Your task to perform on an android device: change text size in settings app Image 0: 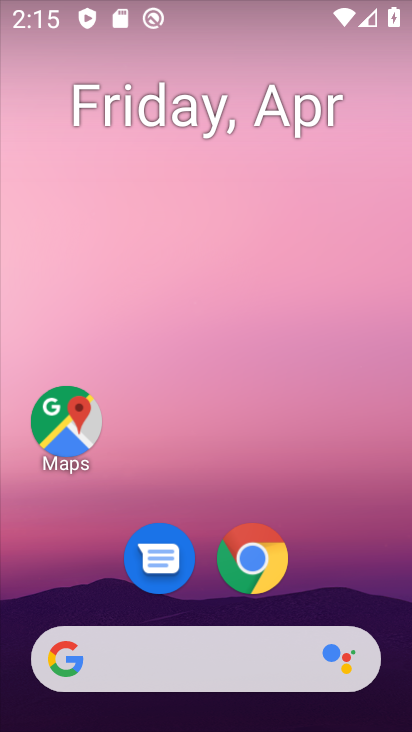
Step 0: drag from (313, 600) to (261, 42)
Your task to perform on an android device: change text size in settings app Image 1: 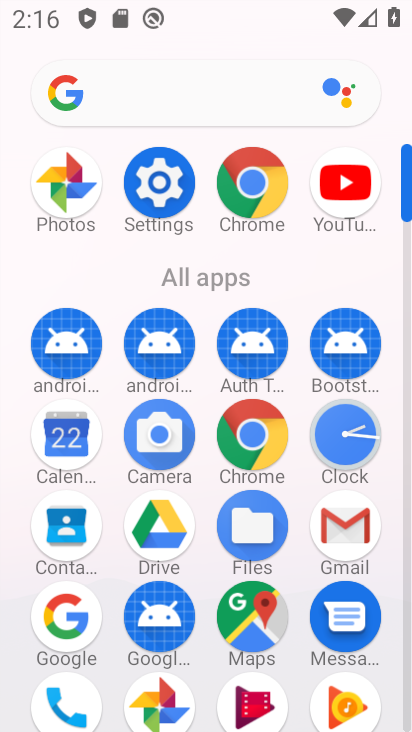
Step 1: click (167, 187)
Your task to perform on an android device: change text size in settings app Image 2: 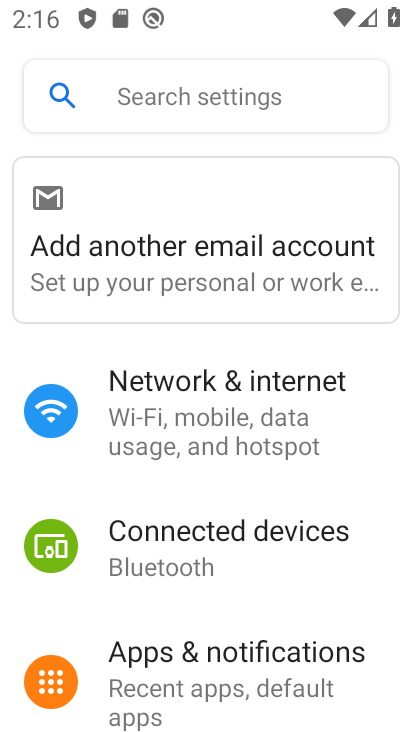
Step 2: drag from (211, 652) to (226, 272)
Your task to perform on an android device: change text size in settings app Image 3: 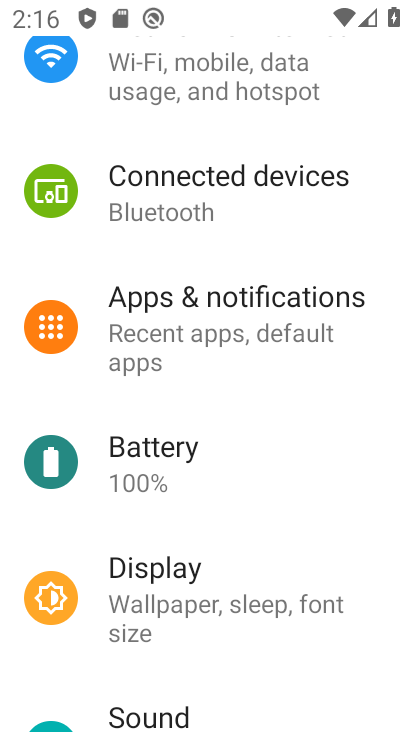
Step 3: click (193, 573)
Your task to perform on an android device: change text size in settings app Image 4: 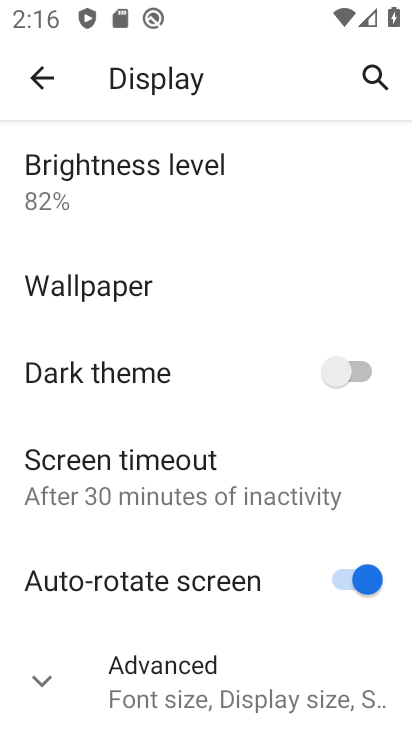
Step 4: click (221, 654)
Your task to perform on an android device: change text size in settings app Image 5: 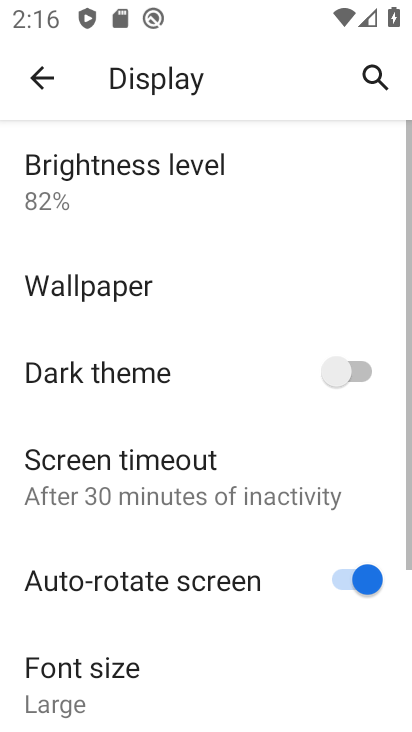
Step 5: drag from (221, 654) to (237, 227)
Your task to perform on an android device: change text size in settings app Image 6: 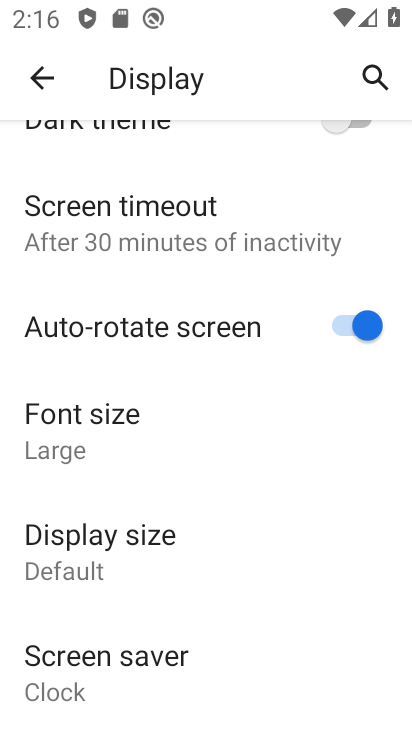
Step 6: click (170, 438)
Your task to perform on an android device: change text size in settings app Image 7: 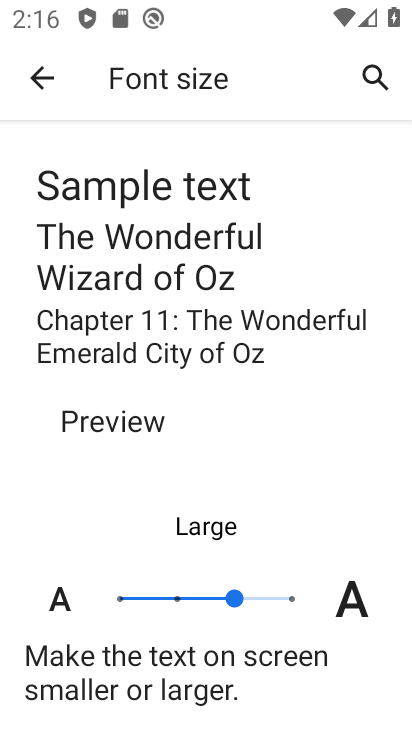
Step 7: click (181, 599)
Your task to perform on an android device: change text size in settings app Image 8: 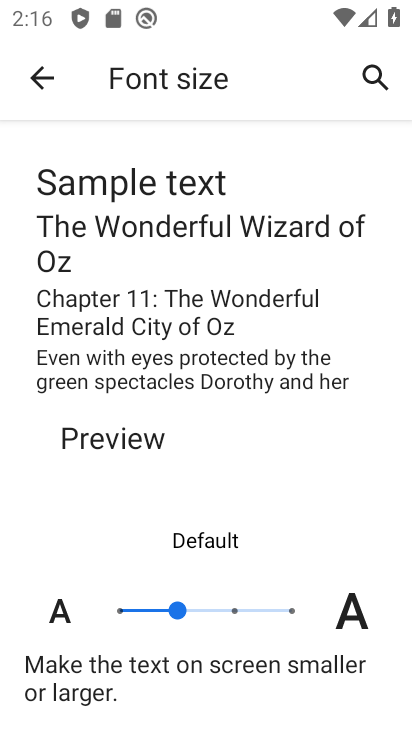
Step 8: task complete